Your task to perform on an android device: What's the weather today? Image 0: 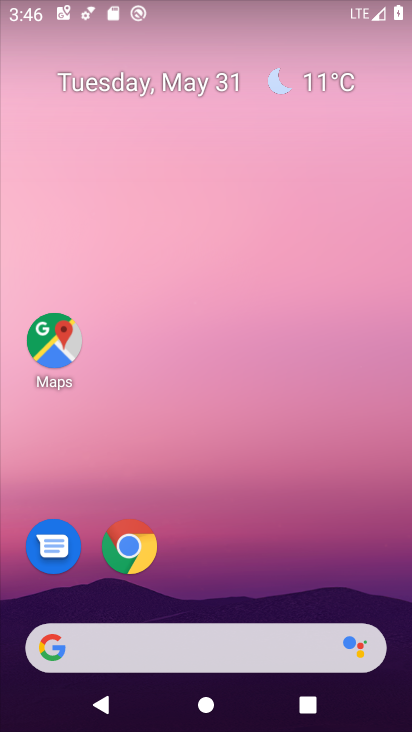
Step 0: click (324, 84)
Your task to perform on an android device: What's the weather today? Image 1: 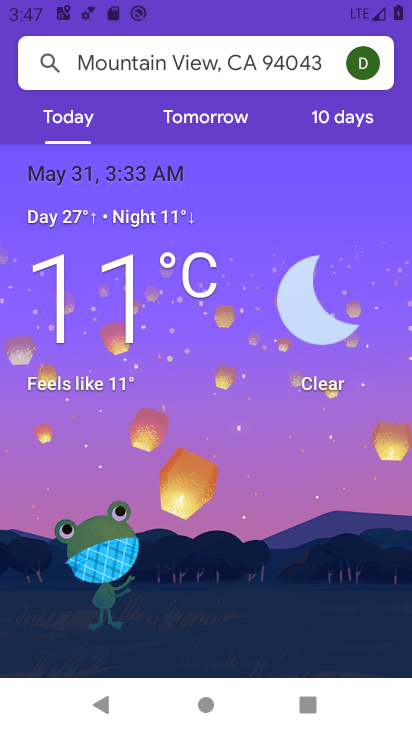
Step 1: task complete